Your task to perform on an android device: change the upload size in google photos Image 0: 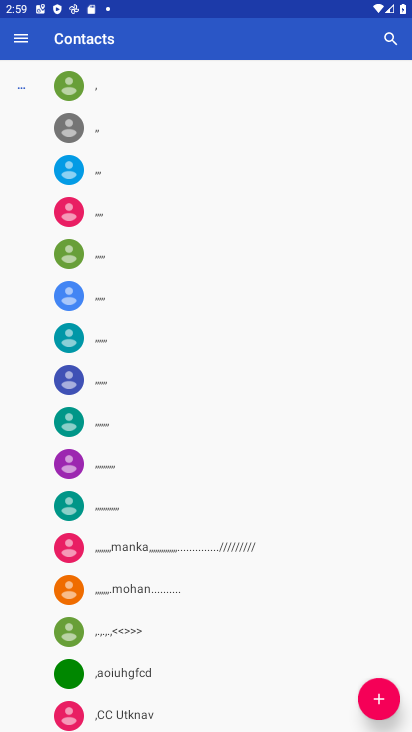
Step 0: press home button
Your task to perform on an android device: change the upload size in google photos Image 1: 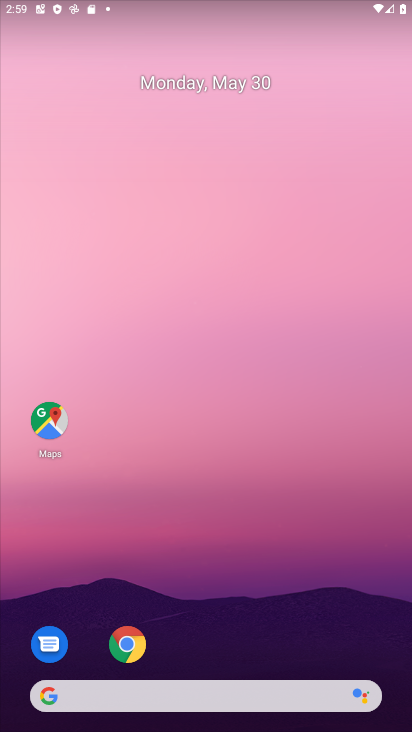
Step 1: drag from (282, 632) to (226, 271)
Your task to perform on an android device: change the upload size in google photos Image 2: 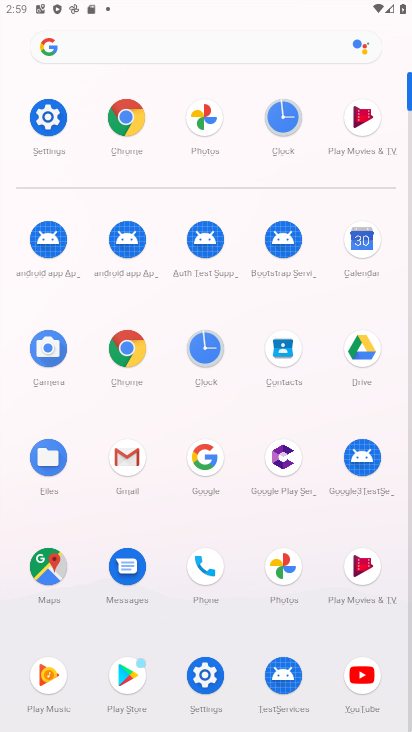
Step 2: click (197, 137)
Your task to perform on an android device: change the upload size in google photos Image 3: 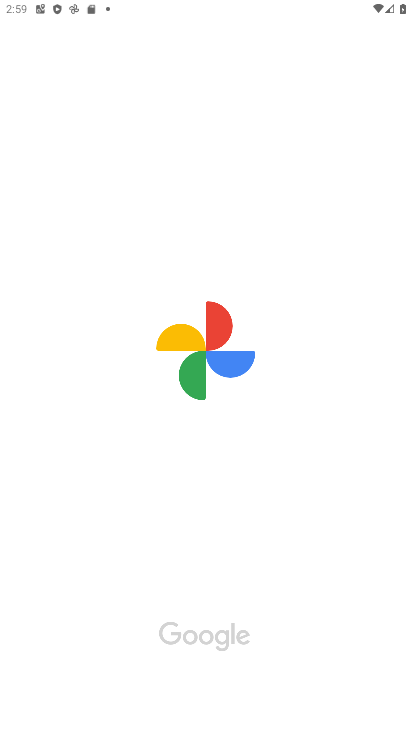
Step 3: task complete